Your task to perform on an android device: What is the recent news? Image 0: 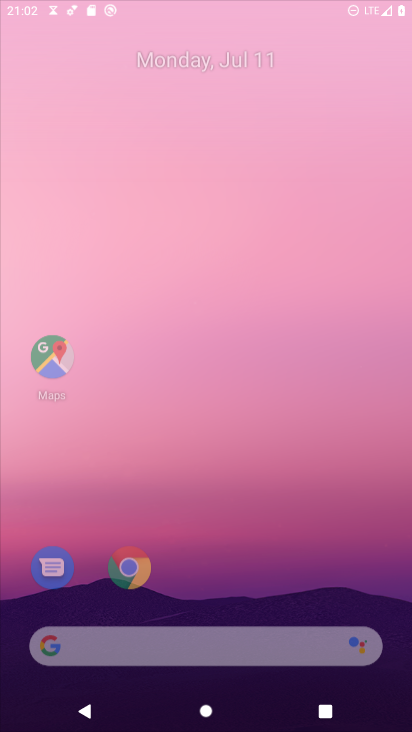
Step 0: press home button
Your task to perform on an android device: What is the recent news? Image 1: 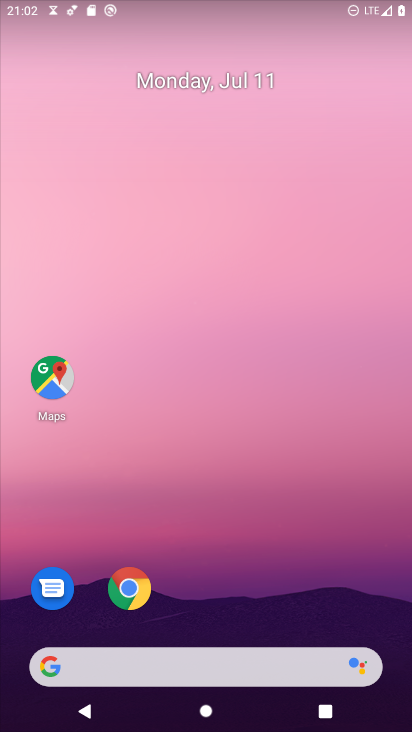
Step 1: click (51, 670)
Your task to perform on an android device: What is the recent news? Image 2: 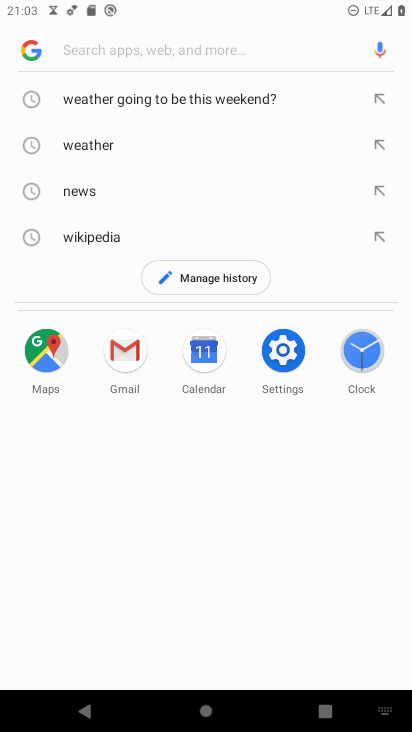
Step 2: type "recent news?"
Your task to perform on an android device: What is the recent news? Image 3: 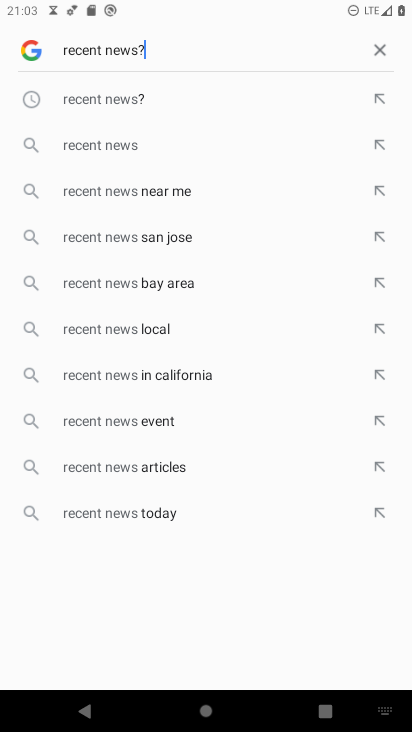
Step 3: press enter
Your task to perform on an android device: What is the recent news? Image 4: 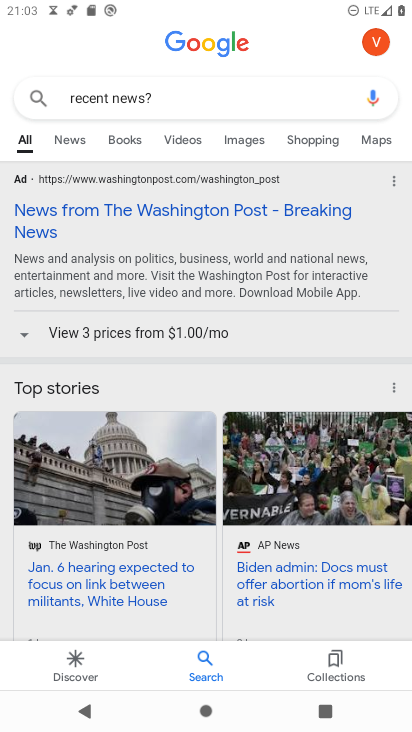
Step 4: task complete